Your task to perform on an android device: change the clock display to analog Image 0: 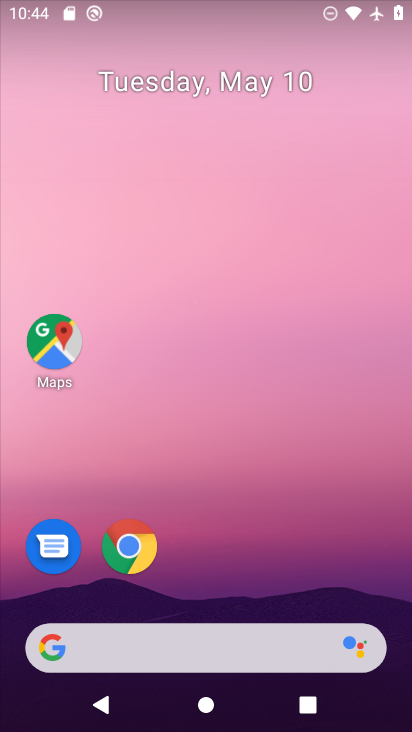
Step 0: click (51, 342)
Your task to perform on an android device: change the clock display to analog Image 1: 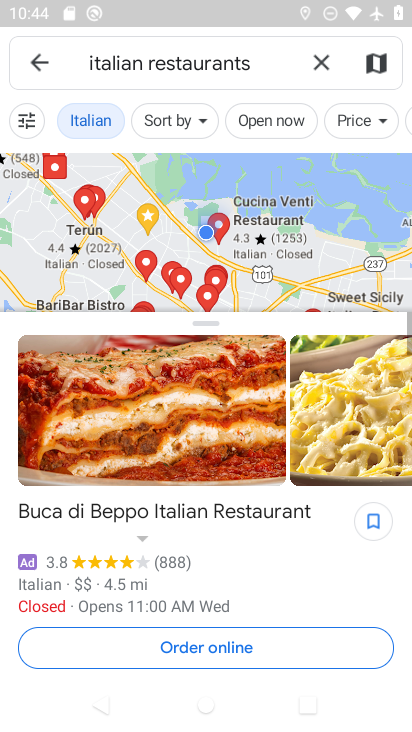
Step 1: click (212, 63)
Your task to perform on an android device: change the clock display to analog Image 2: 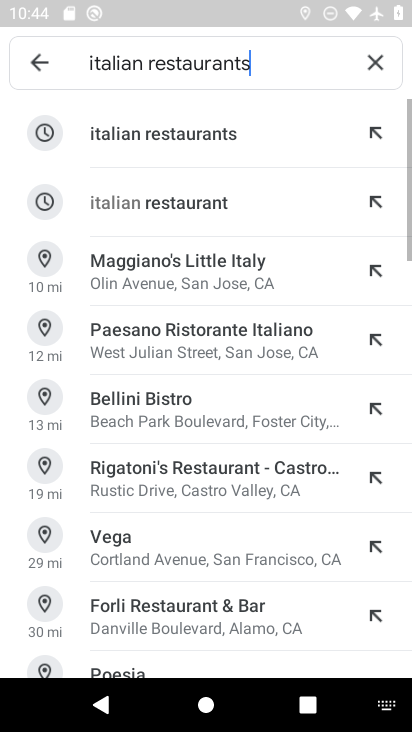
Step 2: click (369, 61)
Your task to perform on an android device: change the clock display to analog Image 3: 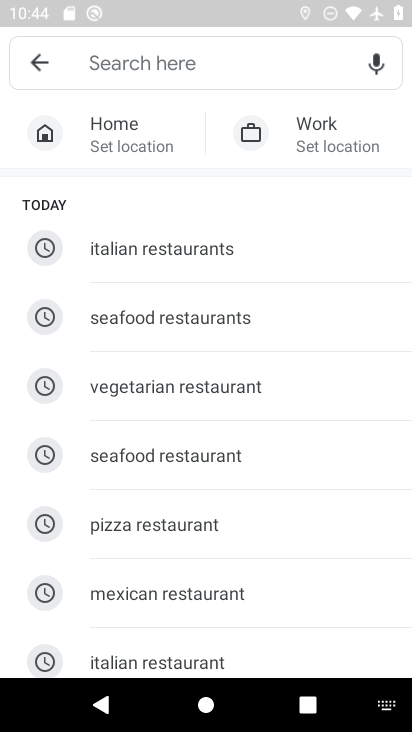
Step 3: press home button
Your task to perform on an android device: change the clock display to analog Image 4: 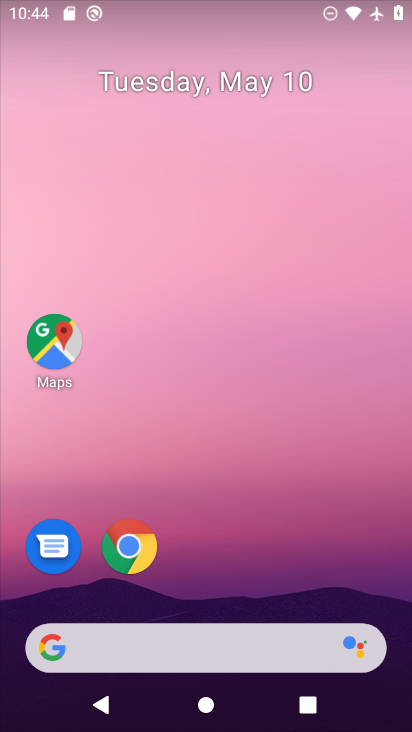
Step 4: drag from (283, 534) to (287, 99)
Your task to perform on an android device: change the clock display to analog Image 5: 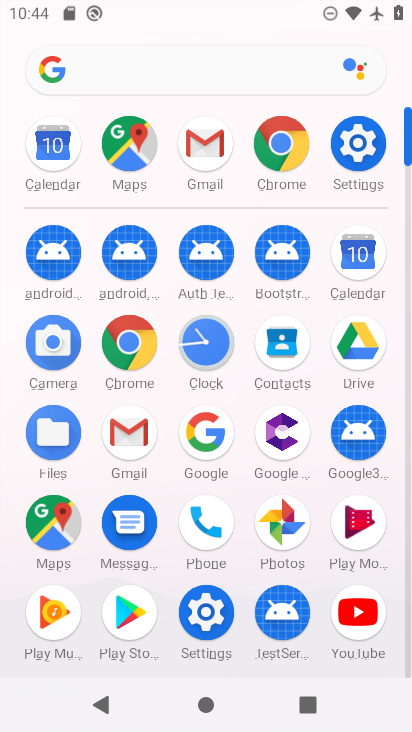
Step 5: click (215, 345)
Your task to perform on an android device: change the clock display to analog Image 6: 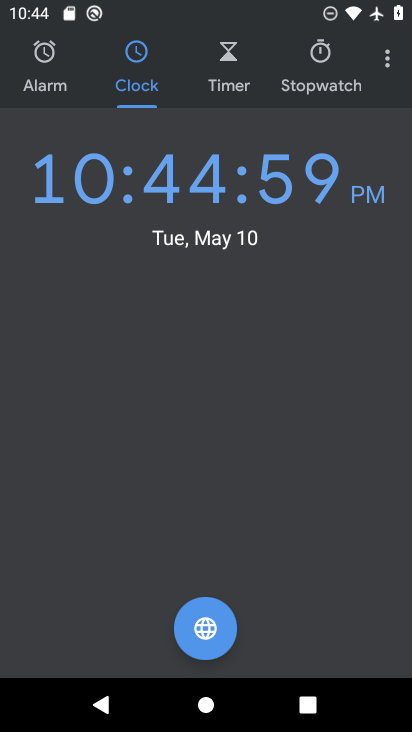
Step 6: click (382, 63)
Your task to perform on an android device: change the clock display to analog Image 7: 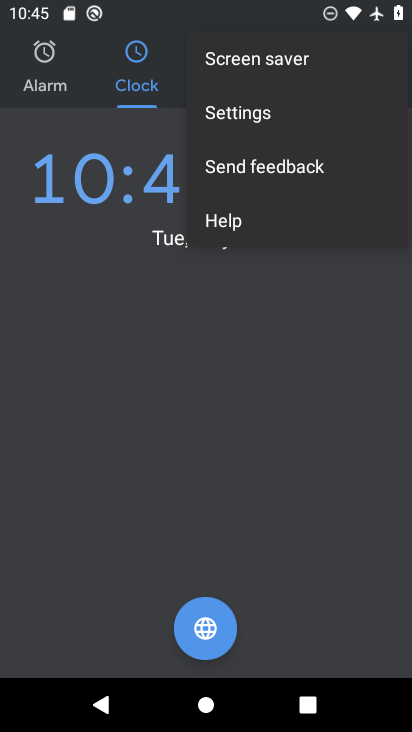
Step 7: click (267, 113)
Your task to perform on an android device: change the clock display to analog Image 8: 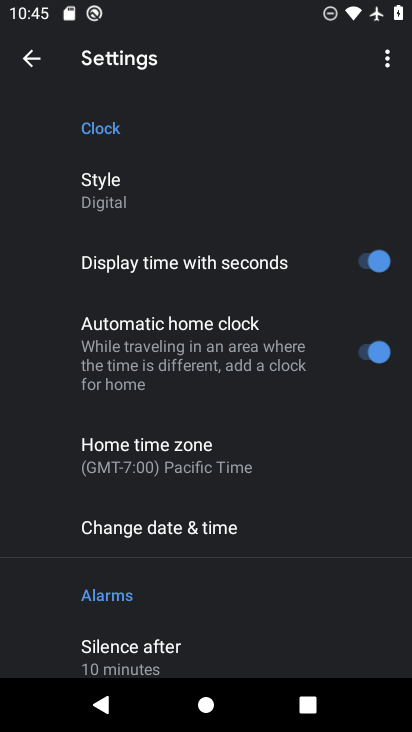
Step 8: click (118, 195)
Your task to perform on an android device: change the clock display to analog Image 9: 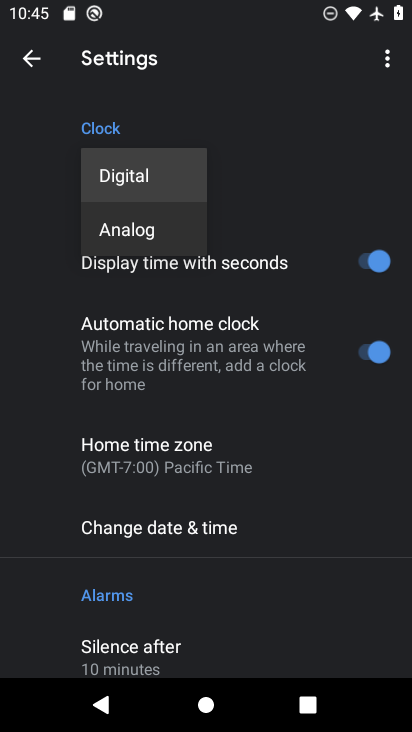
Step 9: click (188, 240)
Your task to perform on an android device: change the clock display to analog Image 10: 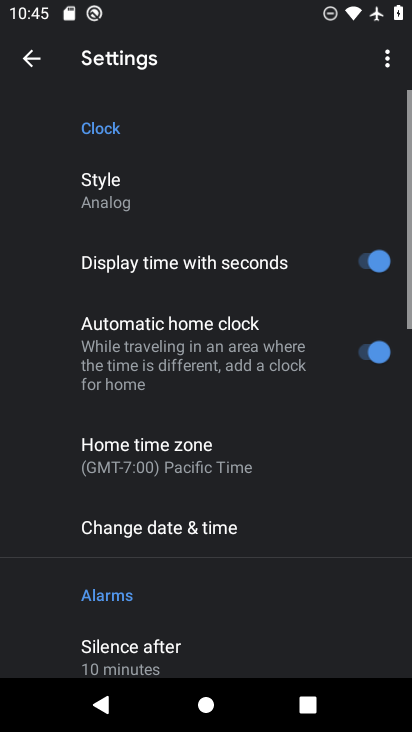
Step 10: task complete